Your task to perform on an android device: Open ESPN.com Image 0: 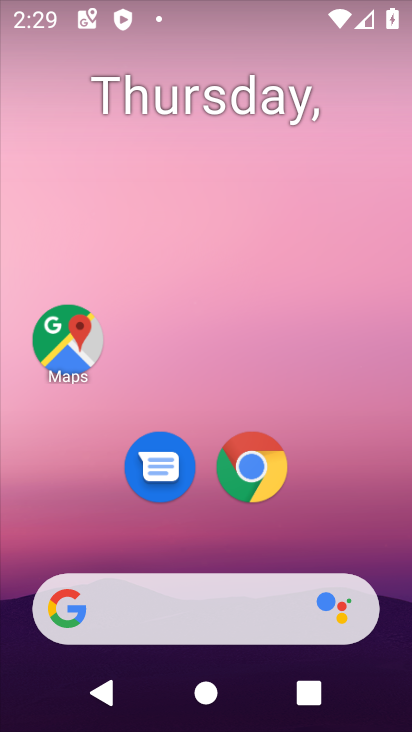
Step 0: drag from (202, 541) to (225, 98)
Your task to perform on an android device: Open ESPN.com Image 1: 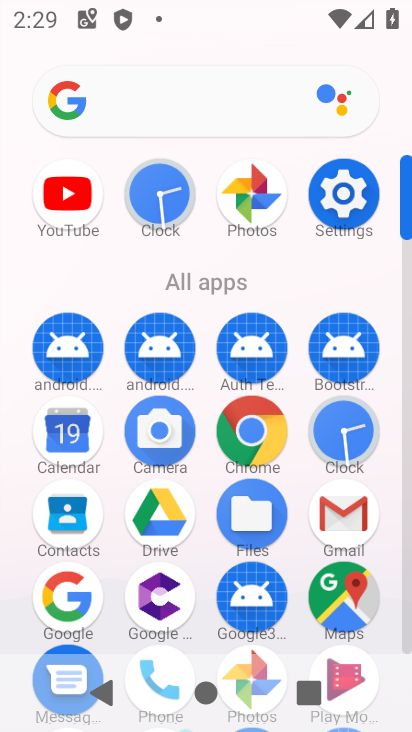
Step 1: click (249, 425)
Your task to perform on an android device: Open ESPN.com Image 2: 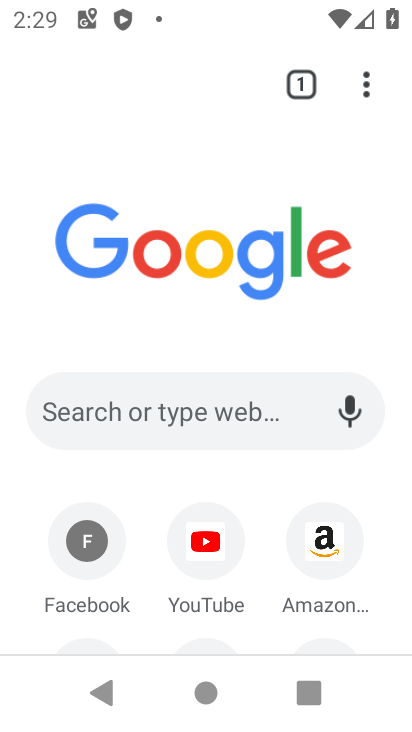
Step 2: drag from (146, 580) to (232, 286)
Your task to perform on an android device: Open ESPN.com Image 3: 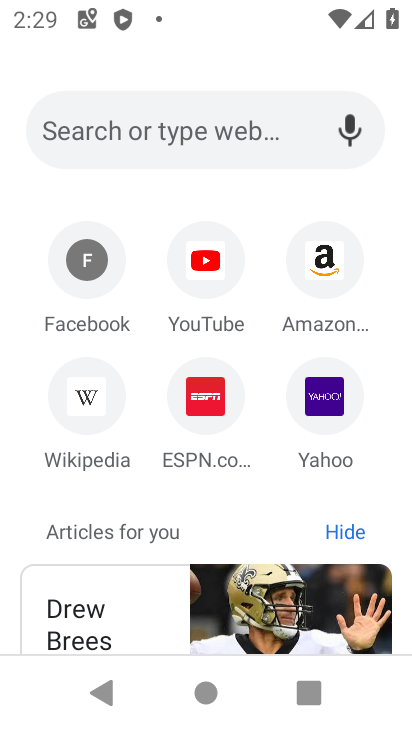
Step 3: click (180, 410)
Your task to perform on an android device: Open ESPN.com Image 4: 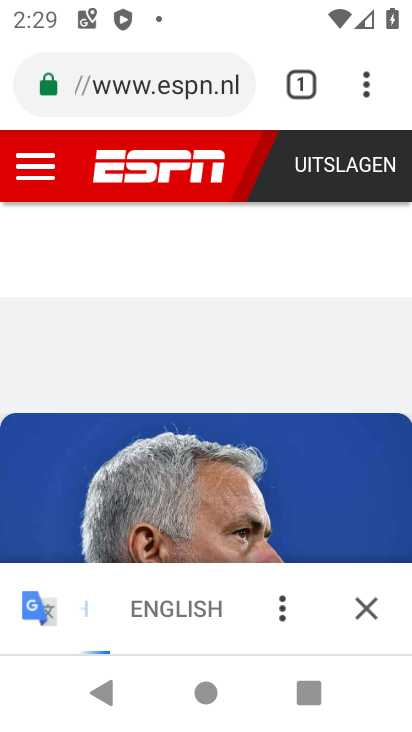
Step 4: task complete